Your task to perform on an android device: turn off smart reply in the gmail app Image 0: 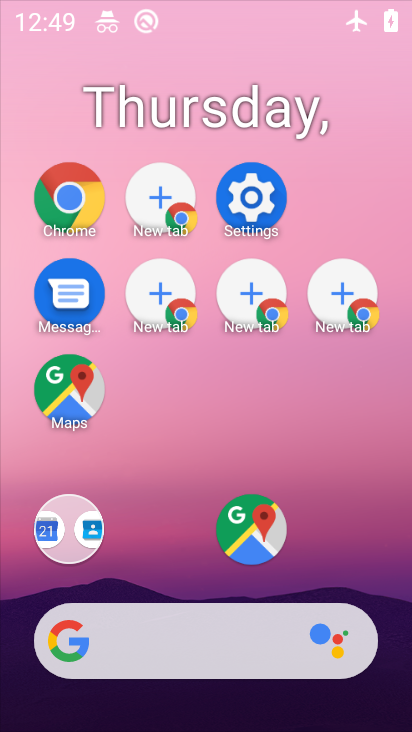
Step 0: drag from (248, 346) to (365, 683)
Your task to perform on an android device: turn off smart reply in the gmail app Image 1: 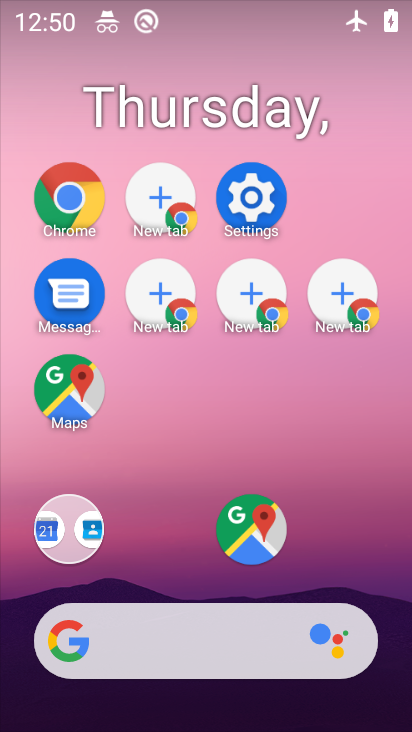
Step 1: drag from (165, 119) to (170, 31)
Your task to perform on an android device: turn off smart reply in the gmail app Image 2: 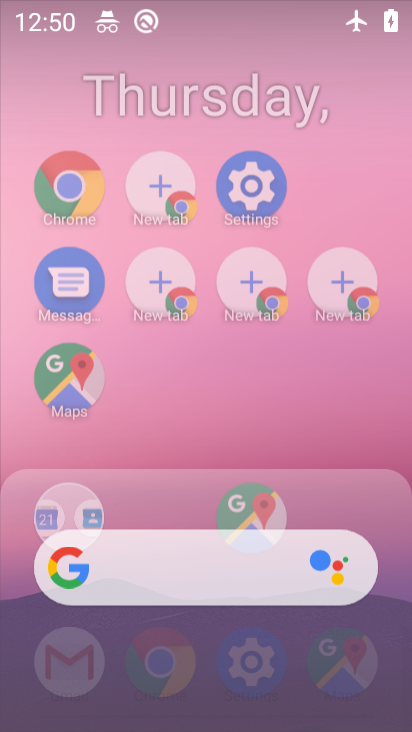
Step 2: drag from (174, 377) to (79, 50)
Your task to perform on an android device: turn off smart reply in the gmail app Image 3: 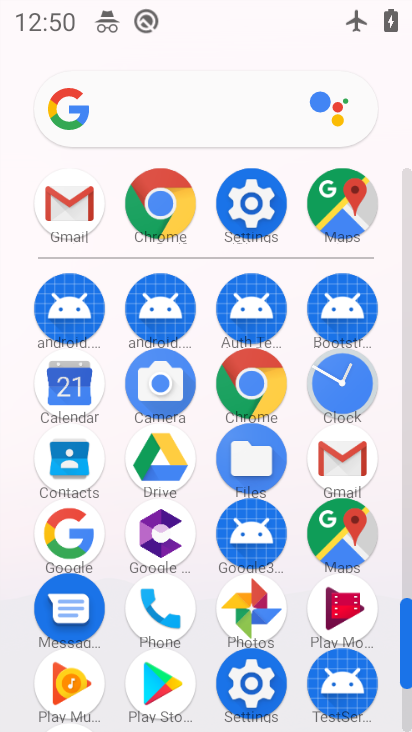
Step 3: drag from (192, 103) to (180, 61)
Your task to perform on an android device: turn off smart reply in the gmail app Image 4: 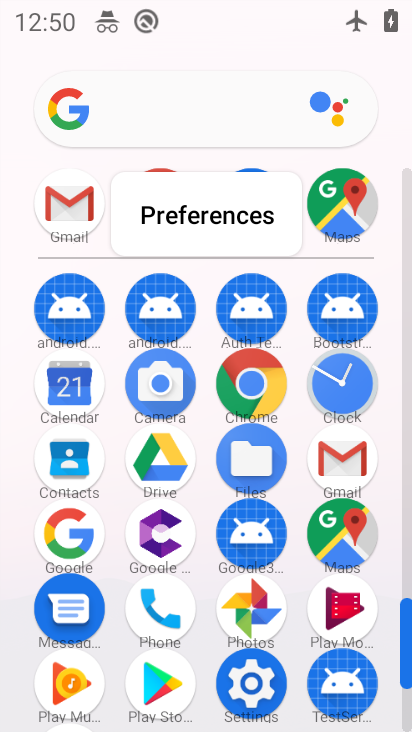
Step 4: click (334, 454)
Your task to perform on an android device: turn off smart reply in the gmail app Image 5: 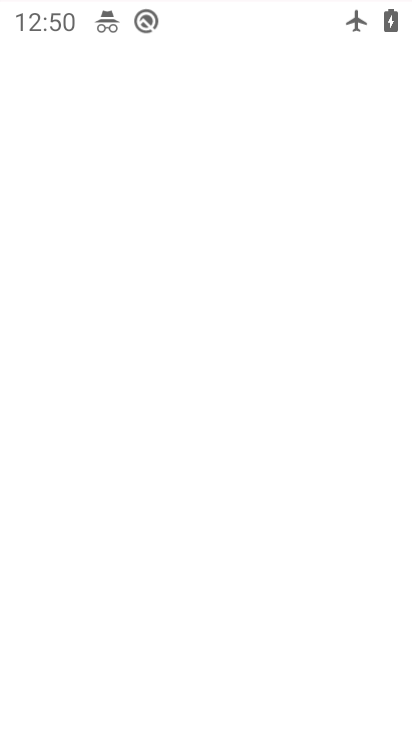
Step 5: click (330, 459)
Your task to perform on an android device: turn off smart reply in the gmail app Image 6: 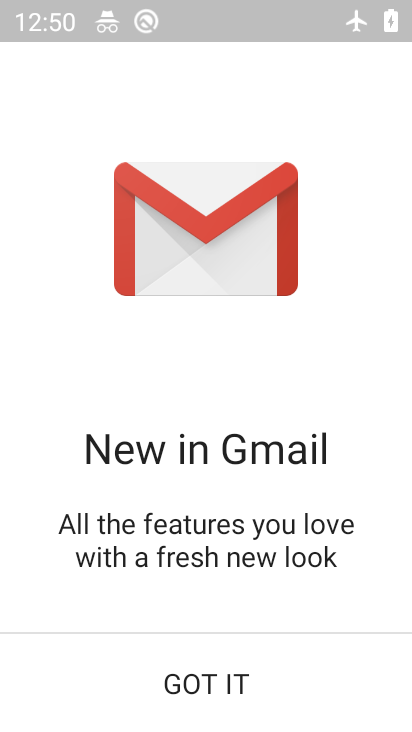
Step 6: click (203, 678)
Your task to perform on an android device: turn off smart reply in the gmail app Image 7: 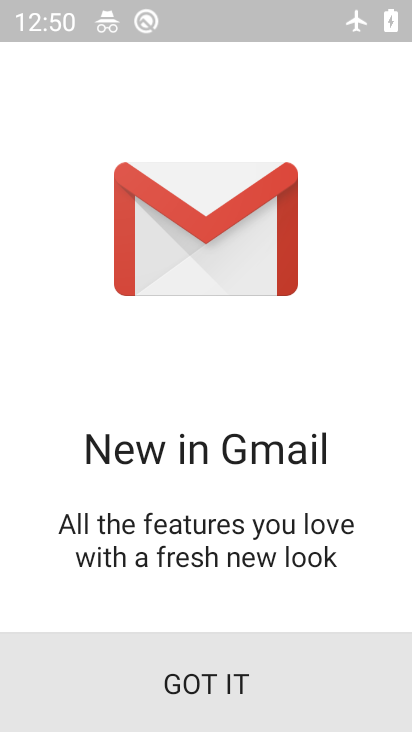
Step 7: click (194, 670)
Your task to perform on an android device: turn off smart reply in the gmail app Image 8: 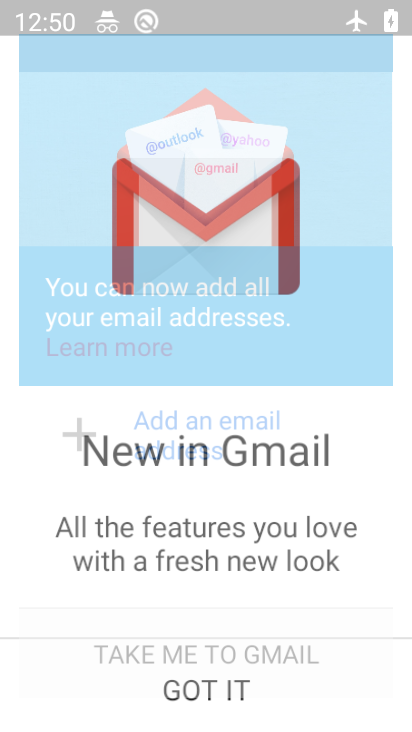
Step 8: click (195, 669)
Your task to perform on an android device: turn off smart reply in the gmail app Image 9: 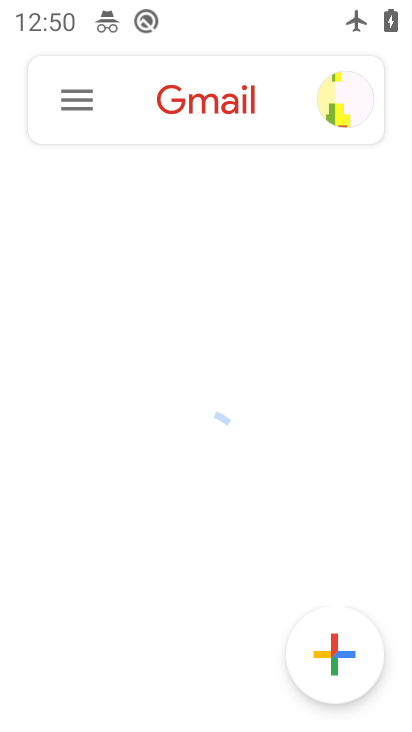
Step 9: click (192, 685)
Your task to perform on an android device: turn off smart reply in the gmail app Image 10: 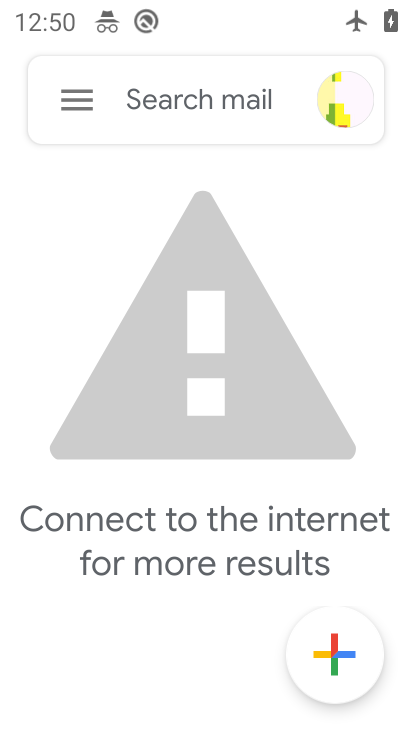
Step 10: task complete